Your task to perform on an android device: Search for "amazon basics triple a" on newegg.com, select the first entry, and add it to the cart. Image 0: 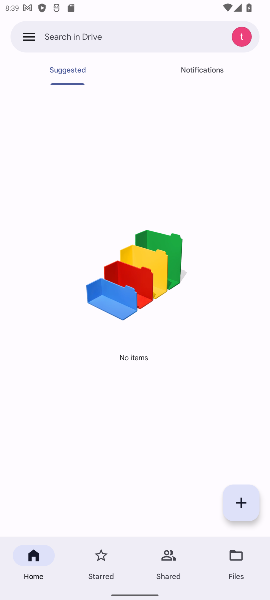
Step 0: press home button
Your task to perform on an android device: Search for "amazon basics triple a" on newegg.com, select the first entry, and add it to the cart. Image 1: 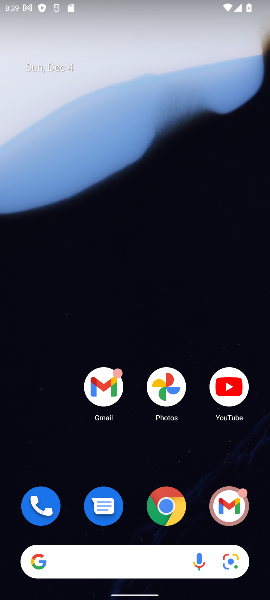
Step 1: click (162, 507)
Your task to perform on an android device: Search for "amazon basics triple a" on newegg.com, select the first entry, and add it to the cart. Image 2: 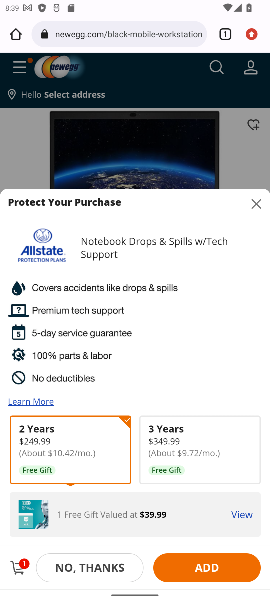
Step 2: click (215, 70)
Your task to perform on an android device: Search for "amazon basics triple a" on newegg.com, select the first entry, and add it to the cart. Image 3: 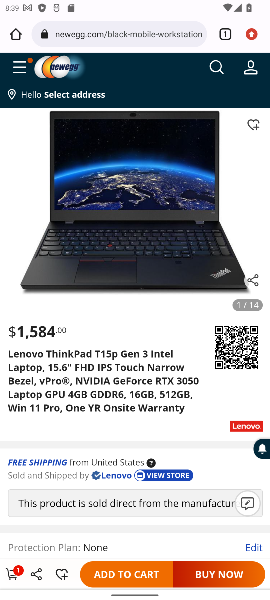
Step 3: click (208, 68)
Your task to perform on an android device: Search for "amazon basics triple a" on newegg.com, select the first entry, and add it to the cart. Image 4: 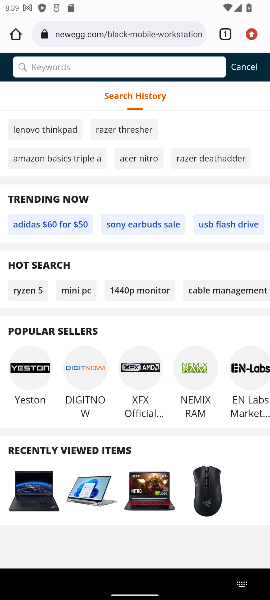
Step 4: type "amazon basics triple a"
Your task to perform on an android device: Search for "amazon basics triple a" on newegg.com, select the first entry, and add it to the cart. Image 5: 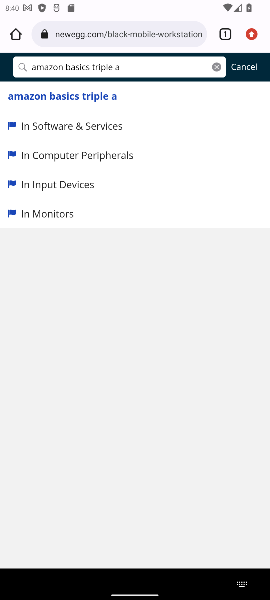
Step 5: click (41, 100)
Your task to perform on an android device: Search for "amazon basics triple a" on newegg.com, select the first entry, and add it to the cart. Image 6: 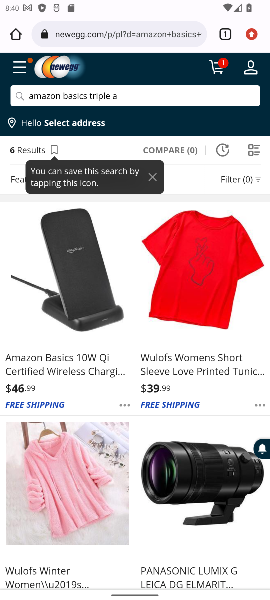
Step 6: task complete